Your task to perform on an android device: move a message to another label in the gmail app Image 0: 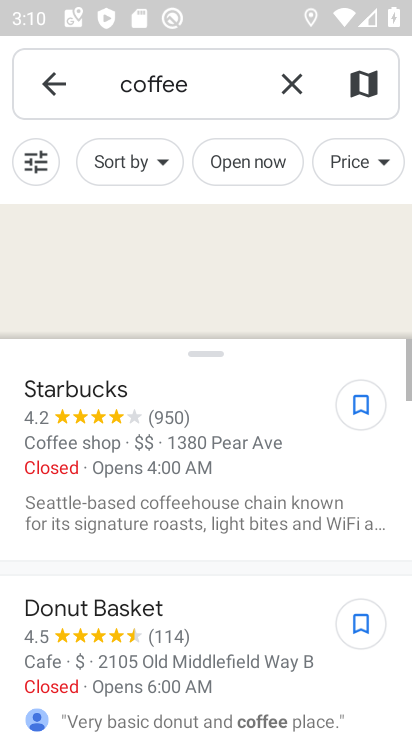
Step 0: press home button
Your task to perform on an android device: move a message to another label in the gmail app Image 1: 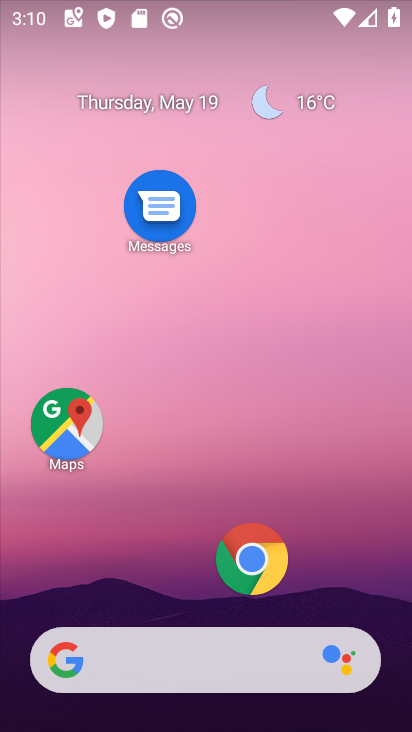
Step 1: drag from (205, 611) to (195, 253)
Your task to perform on an android device: move a message to another label in the gmail app Image 2: 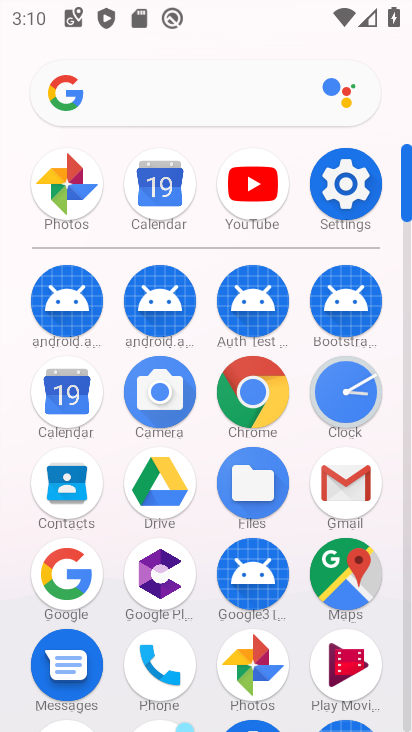
Step 2: click (326, 484)
Your task to perform on an android device: move a message to another label in the gmail app Image 3: 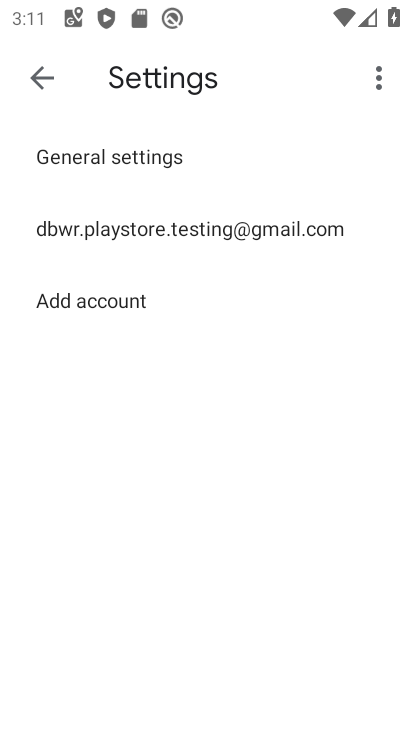
Step 3: click (45, 95)
Your task to perform on an android device: move a message to another label in the gmail app Image 4: 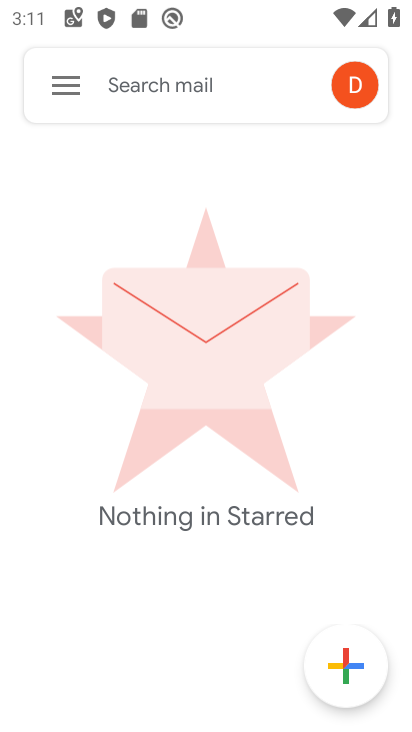
Step 4: click (64, 101)
Your task to perform on an android device: move a message to another label in the gmail app Image 5: 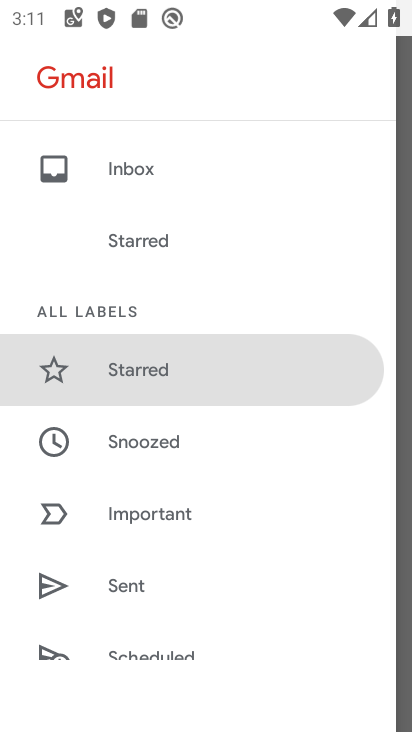
Step 5: drag from (224, 533) to (226, 432)
Your task to perform on an android device: move a message to another label in the gmail app Image 6: 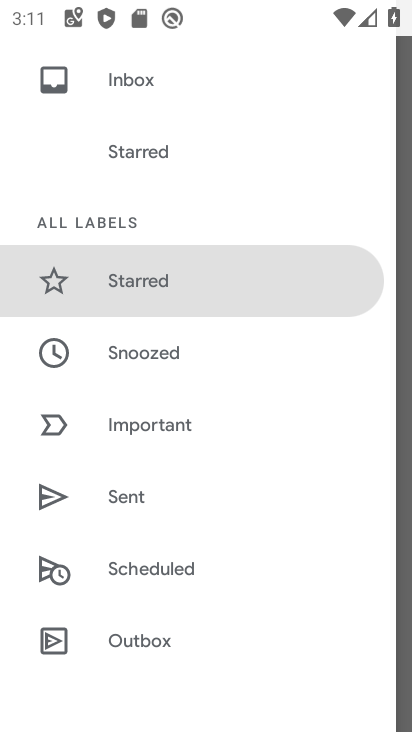
Step 6: drag from (232, 372) to (241, 411)
Your task to perform on an android device: move a message to another label in the gmail app Image 7: 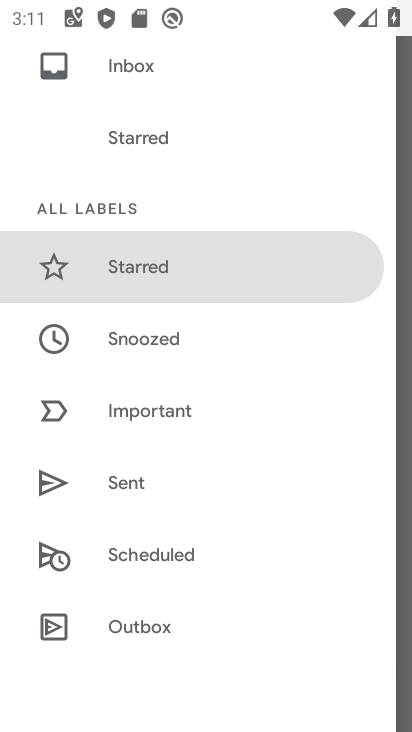
Step 7: drag from (243, 566) to (250, 476)
Your task to perform on an android device: move a message to another label in the gmail app Image 8: 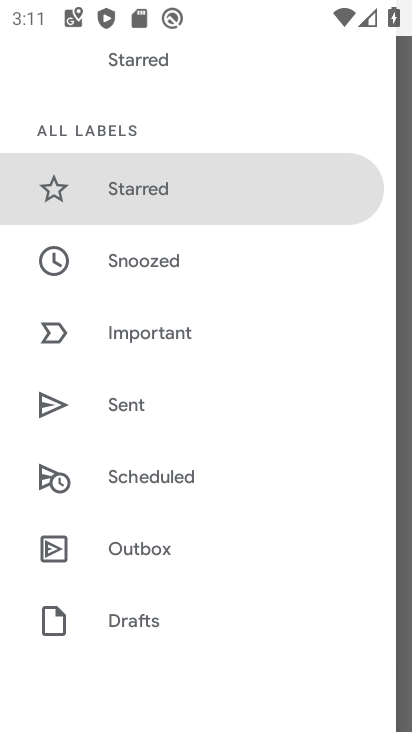
Step 8: drag from (260, 357) to (258, 522)
Your task to perform on an android device: move a message to another label in the gmail app Image 9: 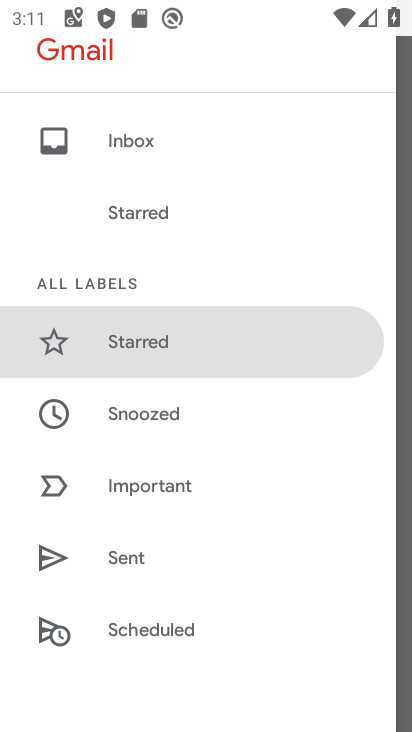
Step 9: drag from (241, 562) to (247, 472)
Your task to perform on an android device: move a message to another label in the gmail app Image 10: 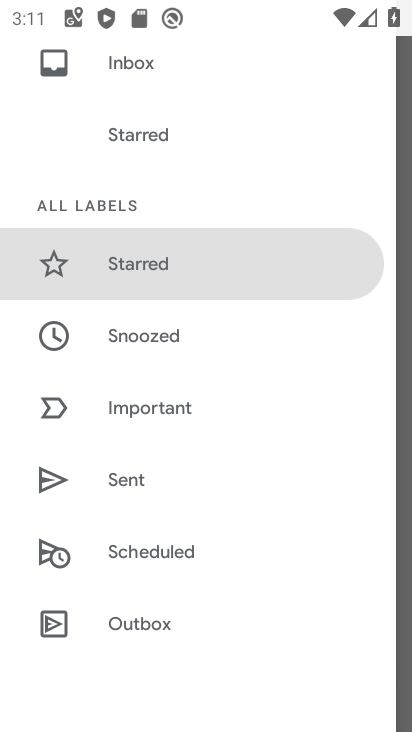
Step 10: drag from (188, 602) to (225, 365)
Your task to perform on an android device: move a message to another label in the gmail app Image 11: 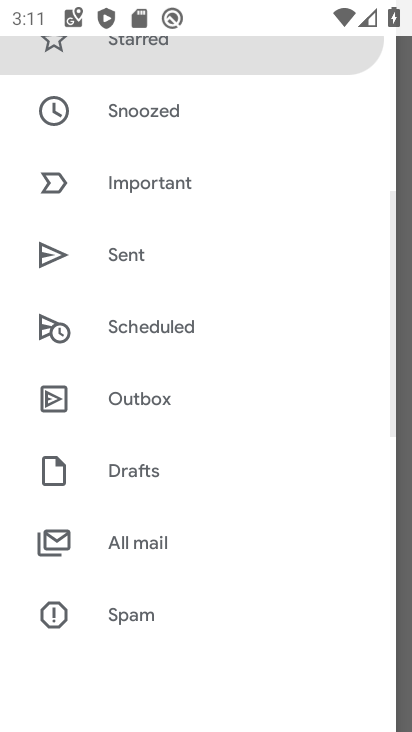
Step 11: click (179, 550)
Your task to perform on an android device: move a message to another label in the gmail app Image 12: 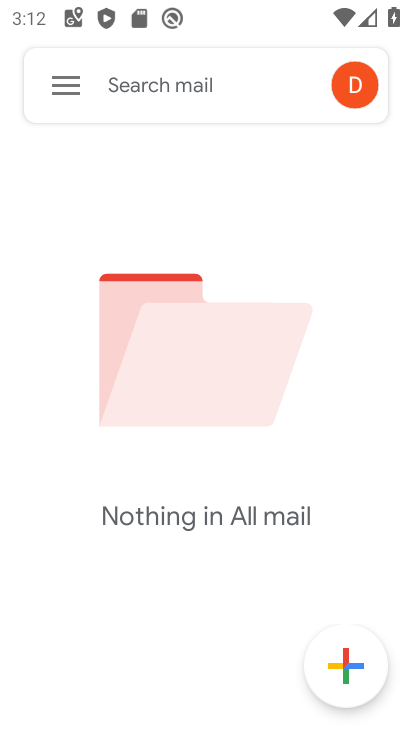
Step 12: task complete